Your task to perform on an android device: check the backup settings in the google photos Image 0: 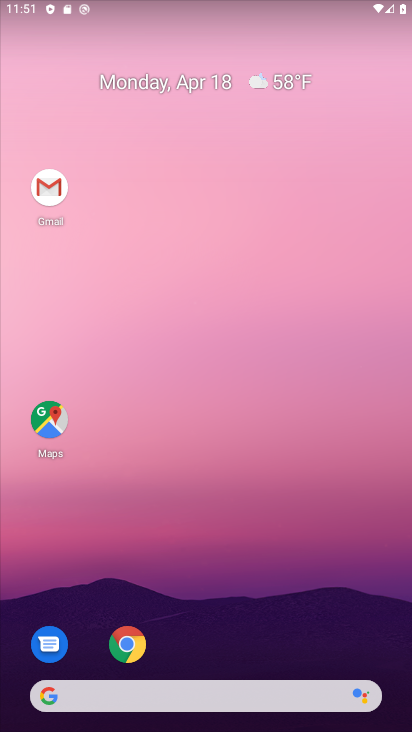
Step 0: click (123, 641)
Your task to perform on an android device: check the backup settings in the google photos Image 1: 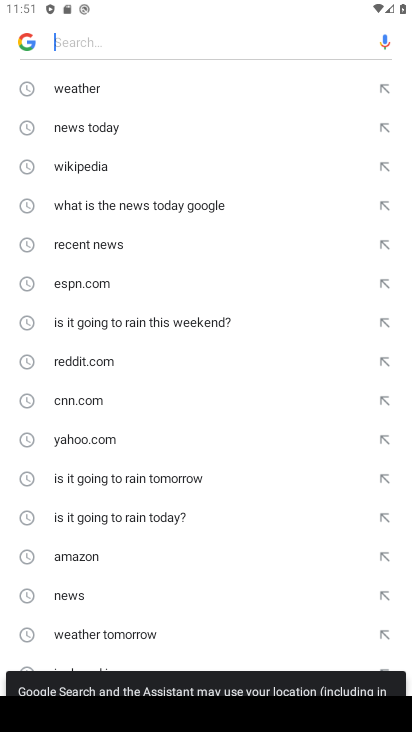
Step 1: type "ebay"
Your task to perform on an android device: check the backup settings in the google photos Image 2: 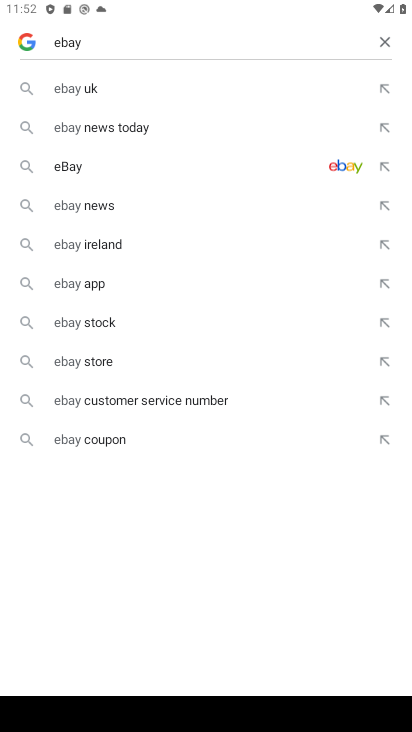
Step 2: click (77, 166)
Your task to perform on an android device: check the backup settings in the google photos Image 3: 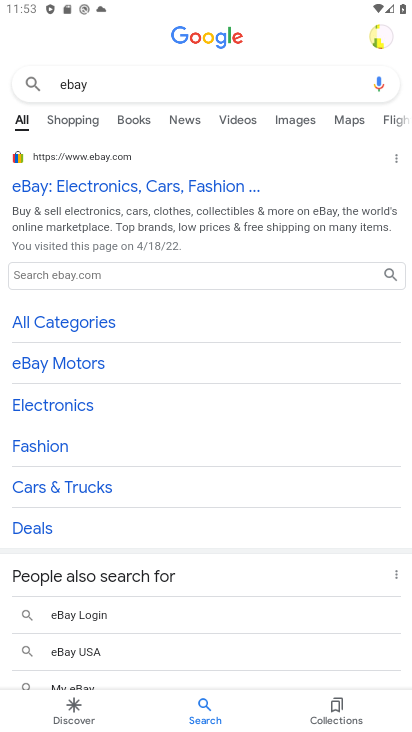
Step 3: click (160, 188)
Your task to perform on an android device: check the backup settings in the google photos Image 4: 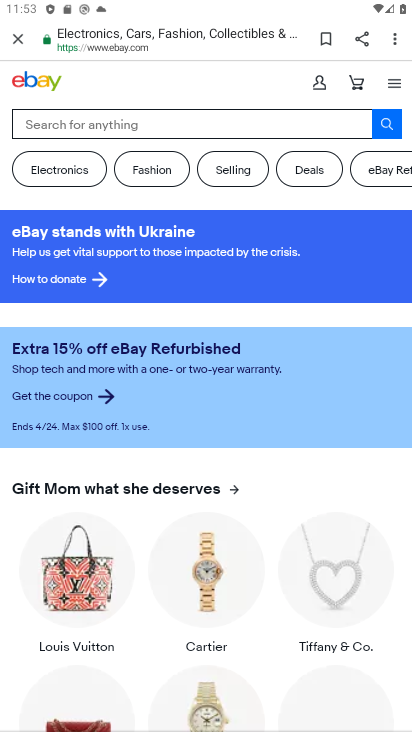
Step 4: task complete